Your task to perform on an android device: turn on the 24-hour format for clock Image 0: 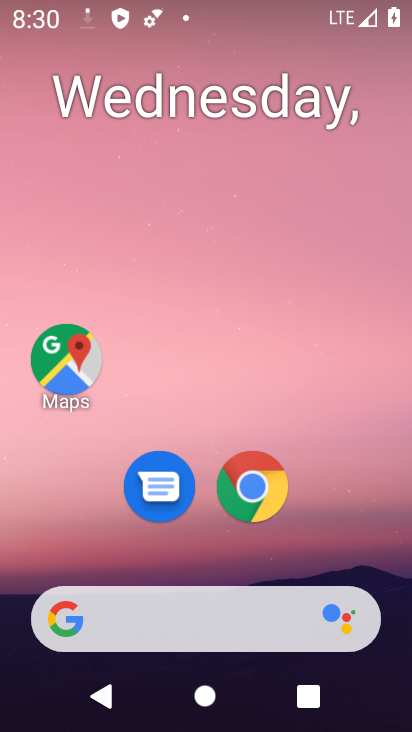
Step 0: drag from (207, 513) to (248, 42)
Your task to perform on an android device: turn on the 24-hour format for clock Image 1: 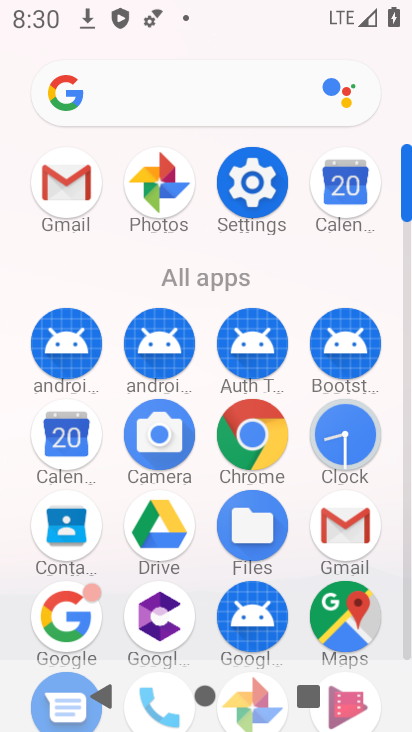
Step 1: click (352, 437)
Your task to perform on an android device: turn on the 24-hour format for clock Image 2: 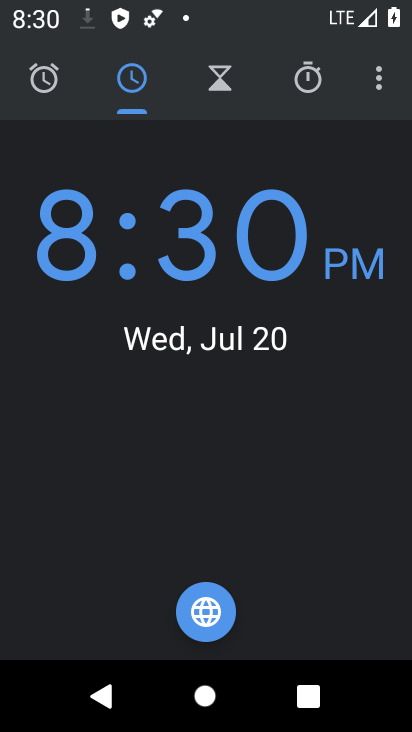
Step 2: click (386, 74)
Your task to perform on an android device: turn on the 24-hour format for clock Image 3: 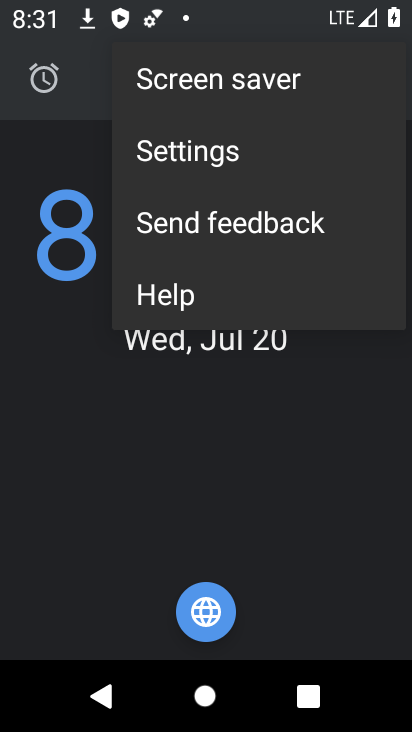
Step 3: click (244, 138)
Your task to perform on an android device: turn on the 24-hour format for clock Image 4: 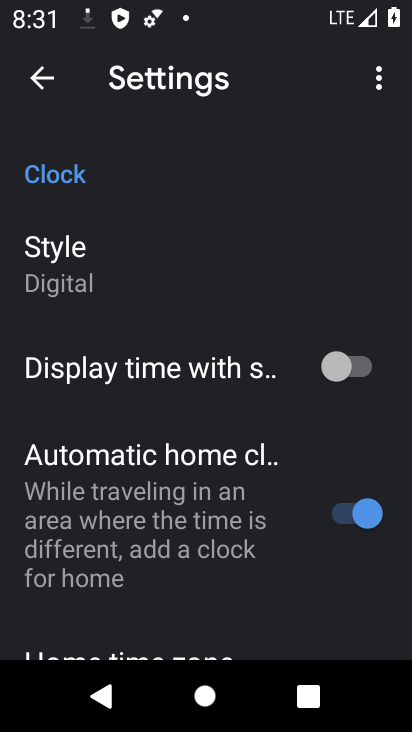
Step 4: drag from (167, 584) to (232, 65)
Your task to perform on an android device: turn on the 24-hour format for clock Image 5: 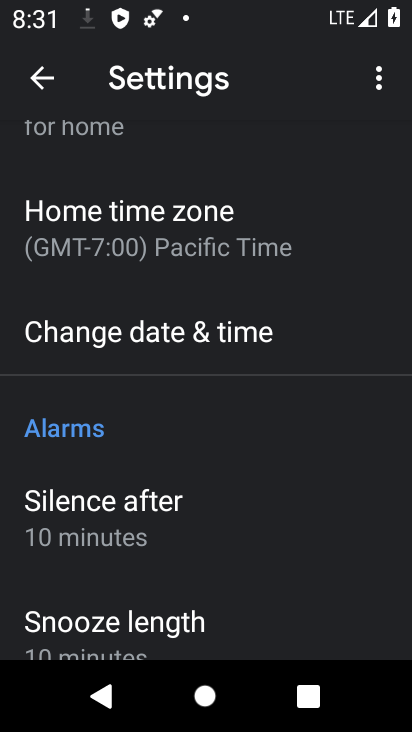
Step 5: click (185, 334)
Your task to perform on an android device: turn on the 24-hour format for clock Image 6: 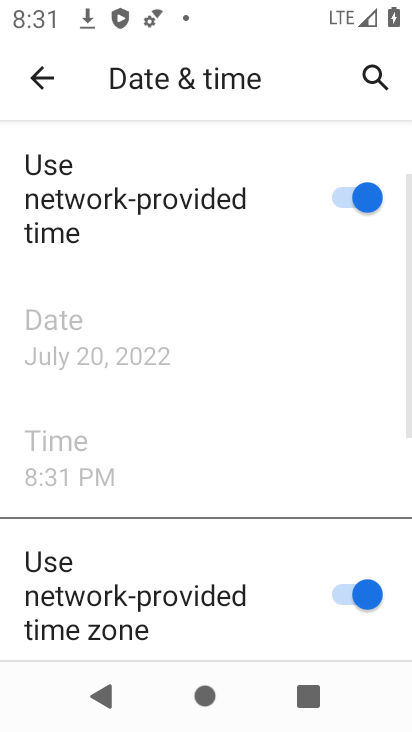
Step 6: drag from (149, 593) to (225, 100)
Your task to perform on an android device: turn on the 24-hour format for clock Image 7: 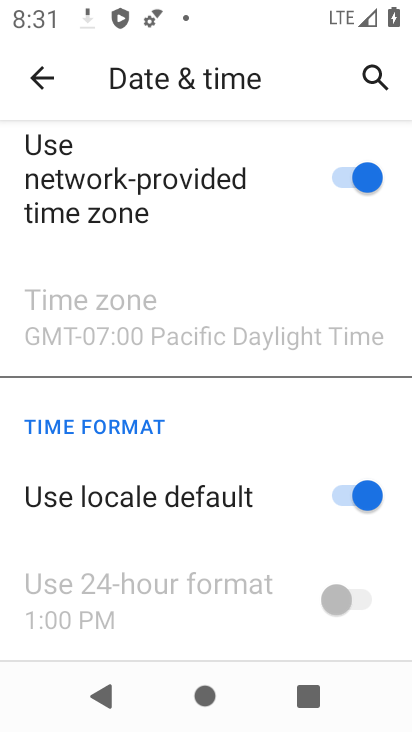
Step 7: click (344, 599)
Your task to perform on an android device: turn on the 24-hour format for clock Image 8: 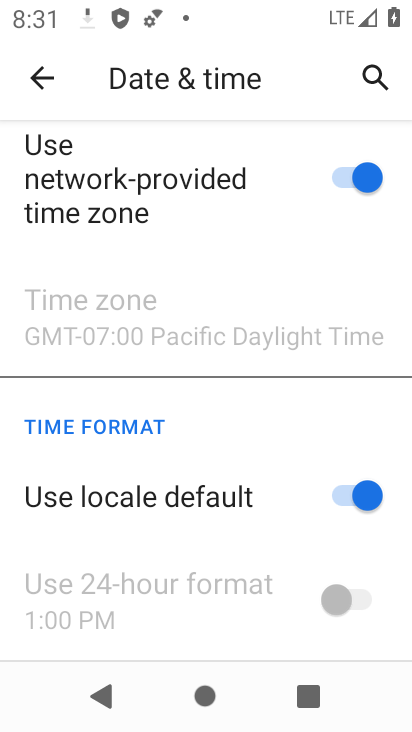
Step 8: click (373, 481)
Your task to perform on an android device: turn on the 24-hour format for clock Image 9: 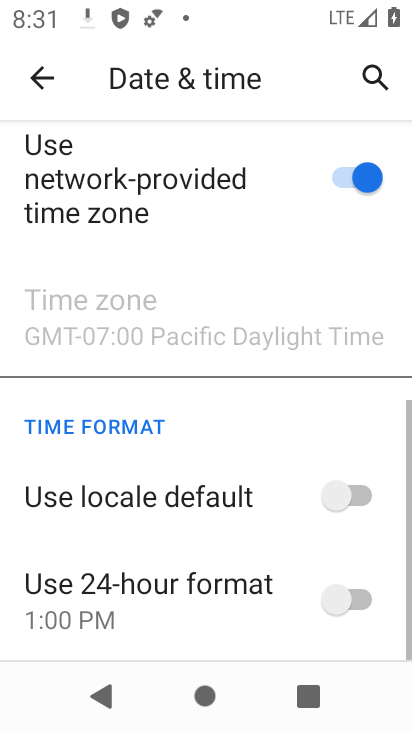
Step 9: click (339, 623)
Your task to perform on an android device: turn on the 24-hour format for clock Image 10: 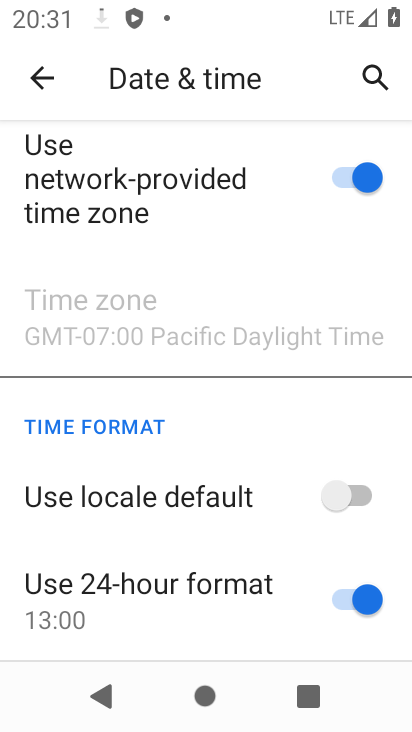
Step 10: task complete